Your task to perform on an android device: Do I have any events tomorrow? Image 0: 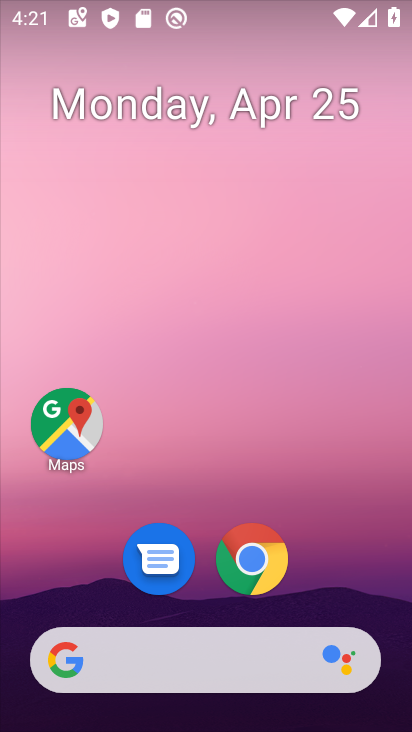
Step 0: drag from (212, 488) to (228, 13)
Your task to perform on an android device: Do I have any events tomorrow? Image 1: 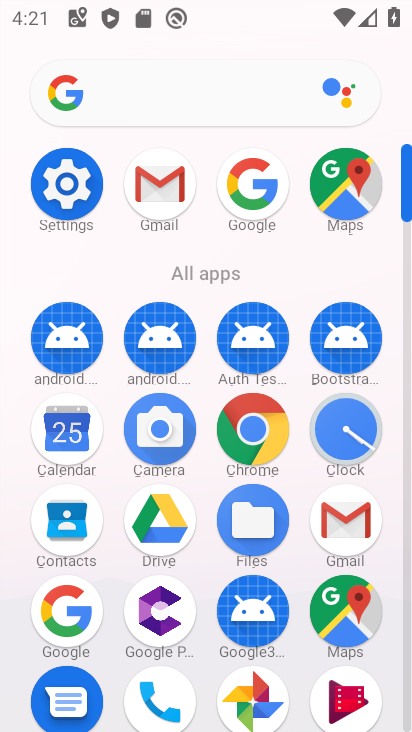
Step 1: click (72, 430)
Your task to perform on an android device: Do I have any events tomorrow? Image 2: 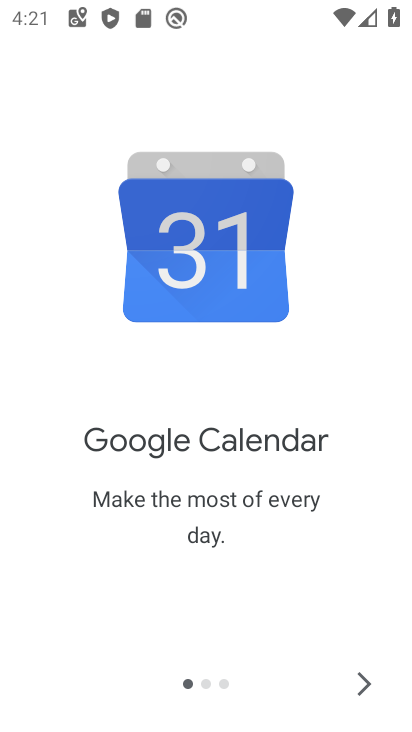
Step 2: click (364, 681)
Your task to perform on an android device: Do I have any events tomorrow? Image 3: 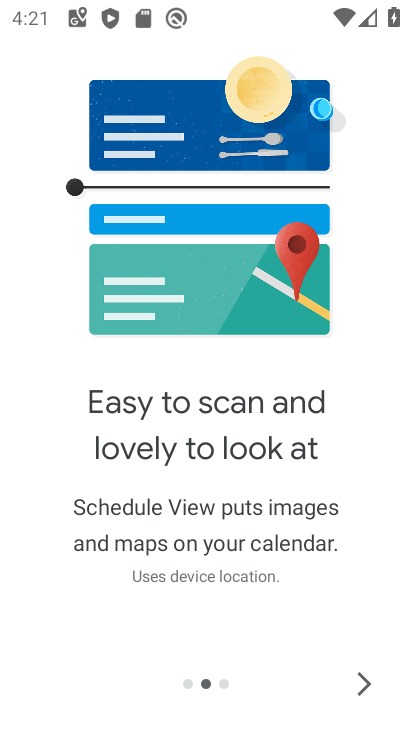
Step 3: click (363, 686)
Your task to perform on an android device: Do I have any events tomorrow? Image 4: 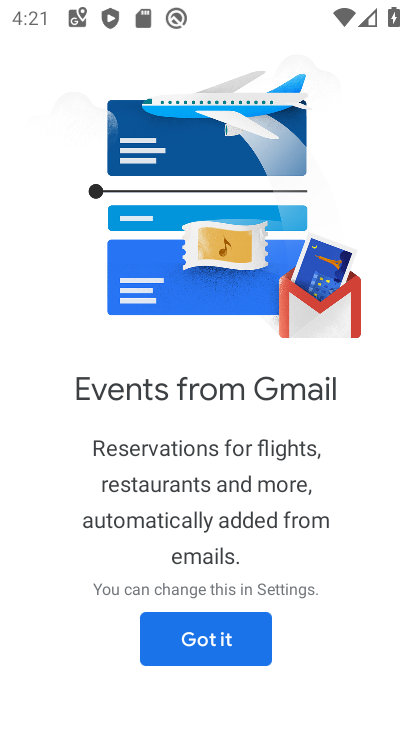
Step 4: click (212, 637)
Your task to perform on an android device: Do I have any events tomorrow? Image 5: 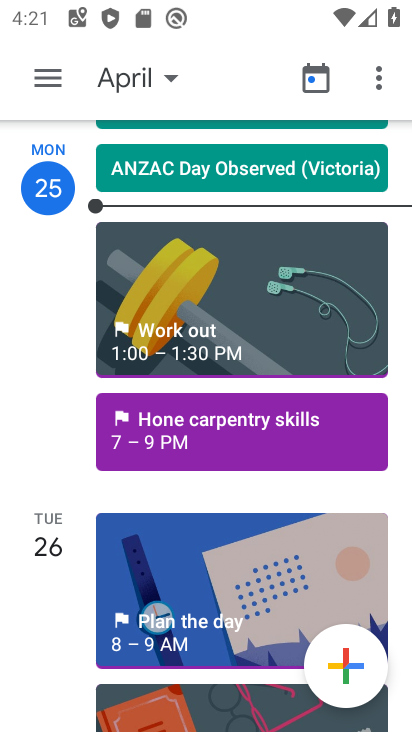
Step 5: click (172, 79)
Your task to perform on an android device: Do I have any events tomorrow? Image 6: 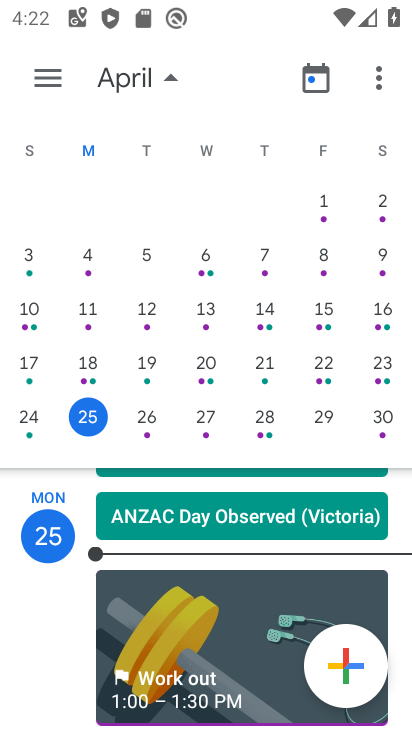
Step 6: click (141, 427)
Your task to perform on an android device: Do I have any events tomorrow? Image 7: 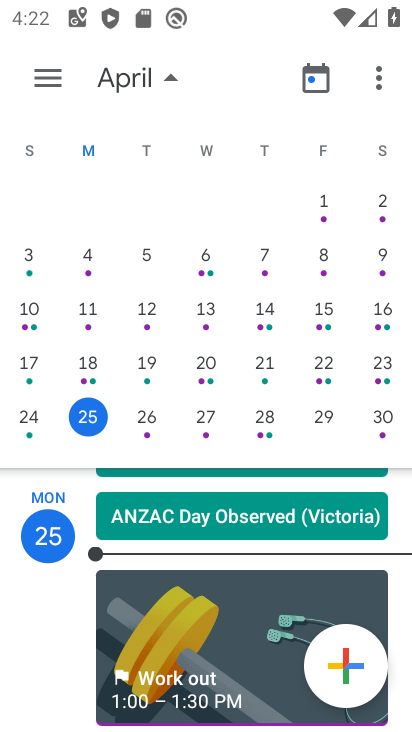
Step 7: click (148, 419)
Your task to perform on an android device: Do I have any events tomorrow? Image 8: 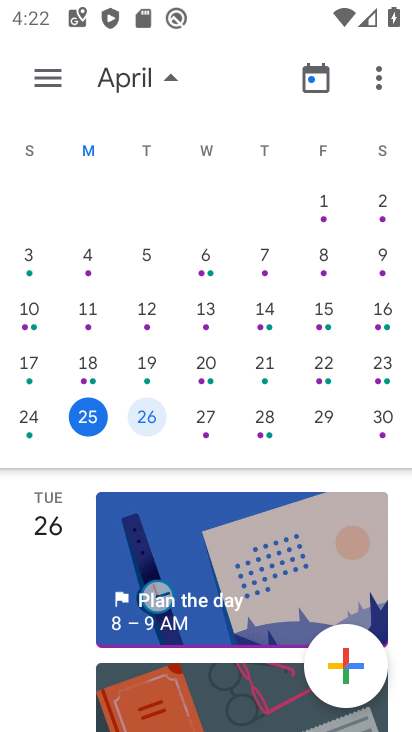
Step 8: task complete